Your task to perform on an android device: star an email in the gmail app Image 0: 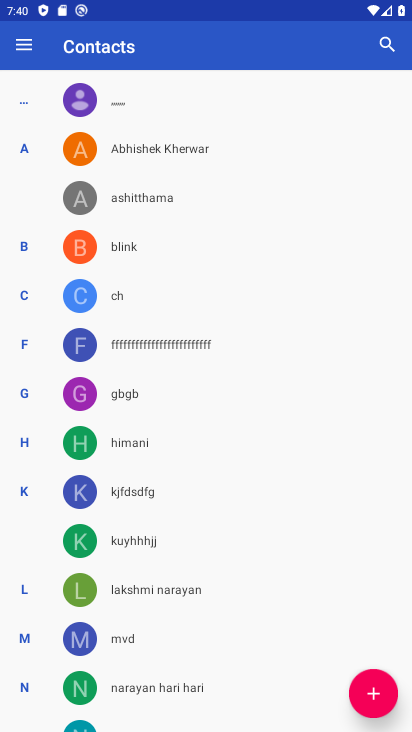
Step 0: press home button
Your task to perform on an android device: star an email in the gmail app Image 1: 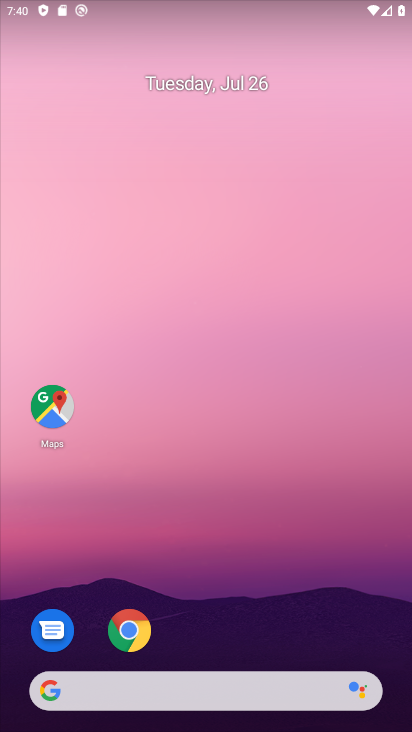
Step 1: drag from (187, 687) to (307, 17)
Your task to perform on an android device: star an email in the gmail app Image 2: 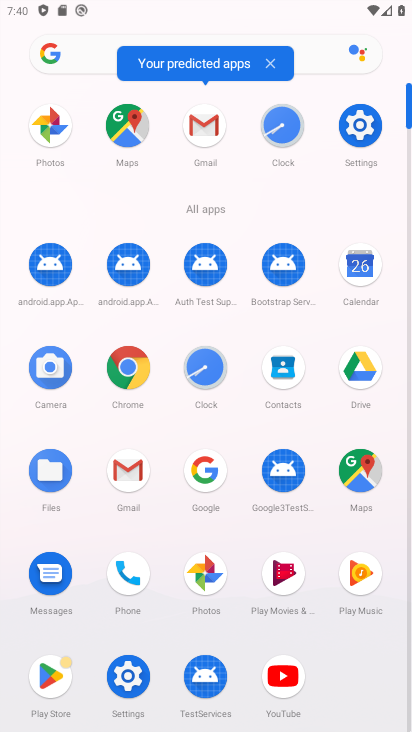
Step 2: click (204, 122)
Your task to perform on an android device: star an email in the gmail app Image 3: 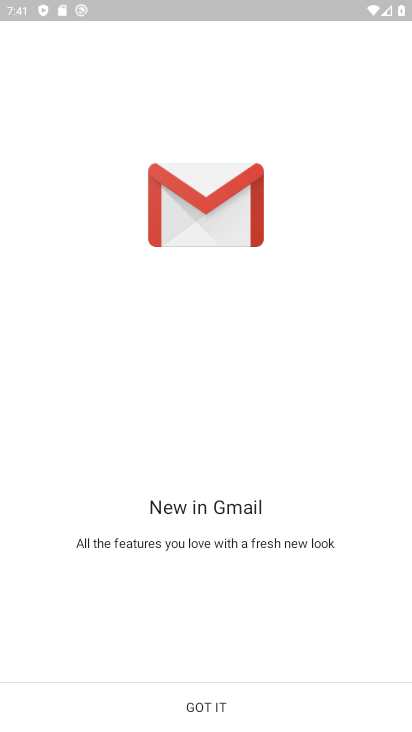
Step 3: click (209, 707)
Your task to perform on an android device: star an email in the gmail app Image 4: 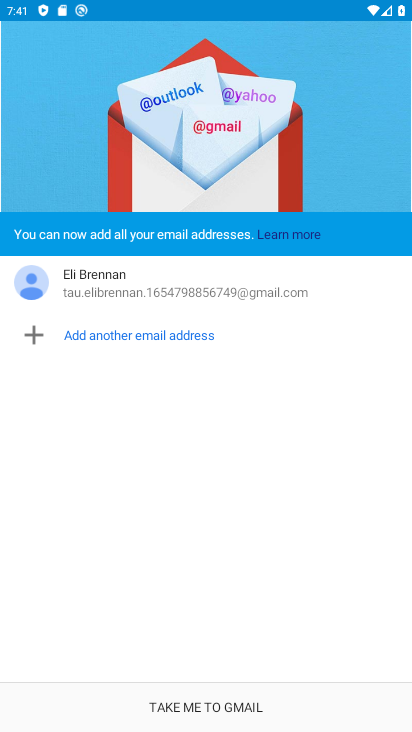
Step 4: click (209, 707)
Your task to perform on an android device: star an email in the gmail app Image 5: 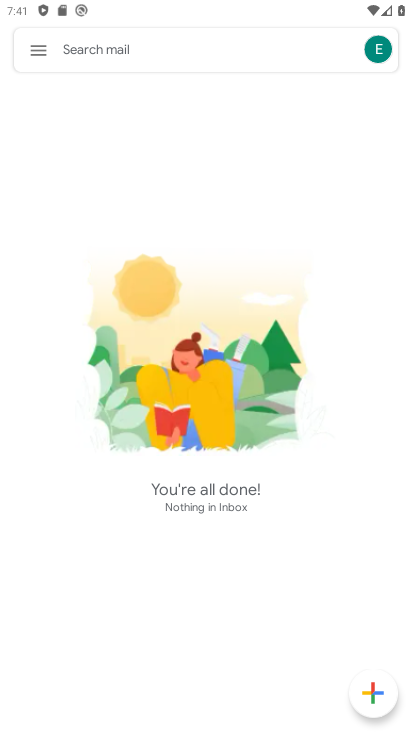
Step 5: click (42, 48)
Your task to perform on an android device: star an email in the gmail app Image 6: 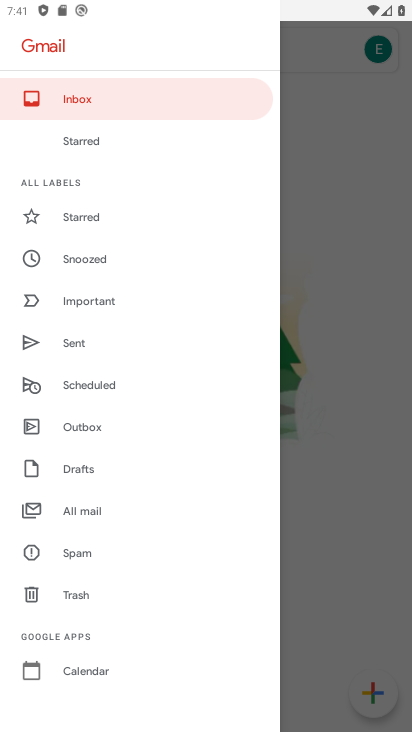
Step 6: click (75, 509)
Your task to perform on an android device: star an email in the gmail app Image 7: 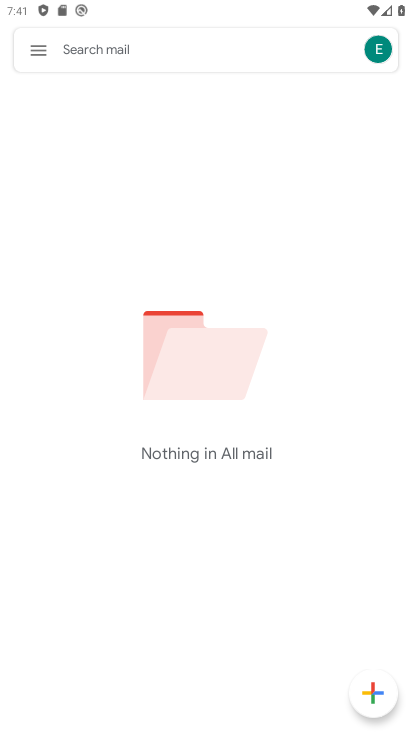
Step 7: click (40, 55)
Your task to perform on an android device: star an email in the gmail app Image 8: 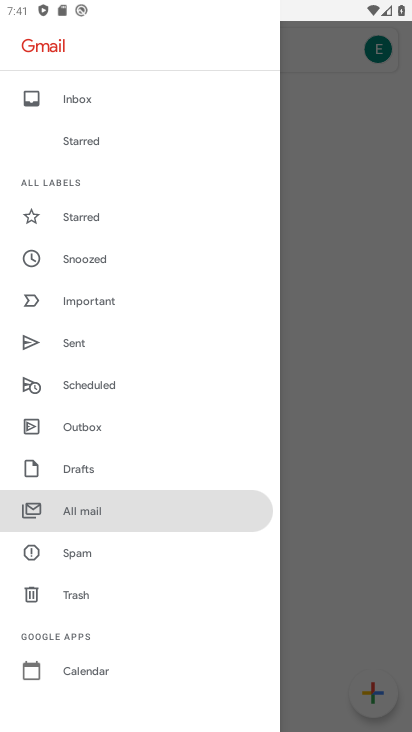
Step 8: click (76, 145)
Your task to perform on an android device: star an email in the gmail app Image 9: 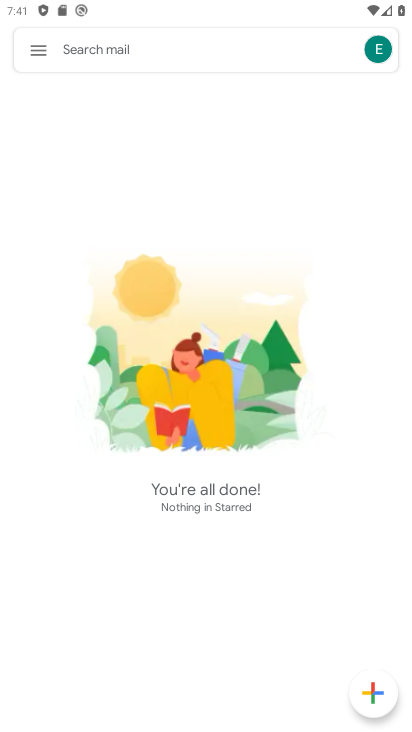
Step 9: click (37, 50)
Your task to perform on an android device: star an email in the gmail app Image 10: 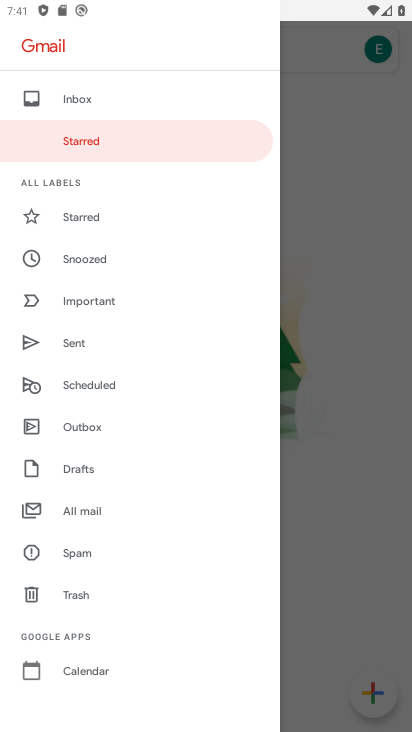
Step 10: click (75, 217)
Your task to perform on an android device: star an email in the gmail app Image 11: 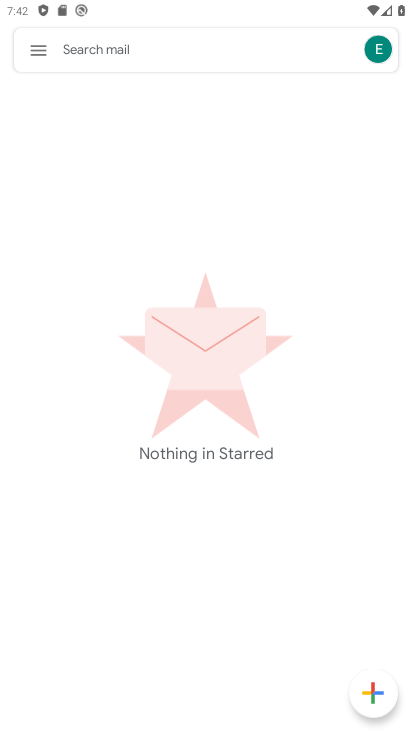
Step 11: click (43, 46)
Your task to perform on an android device: star an email in the gmail app Image 12: 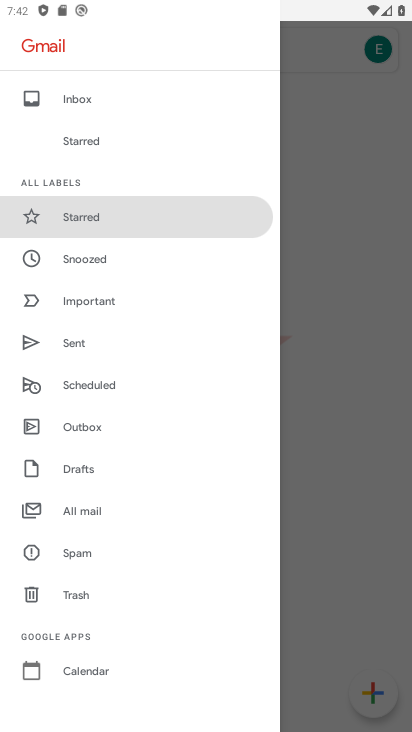
Step 12: click (69, 256)
Your task to perform on an android device: star an email in the gmail app Image 13: 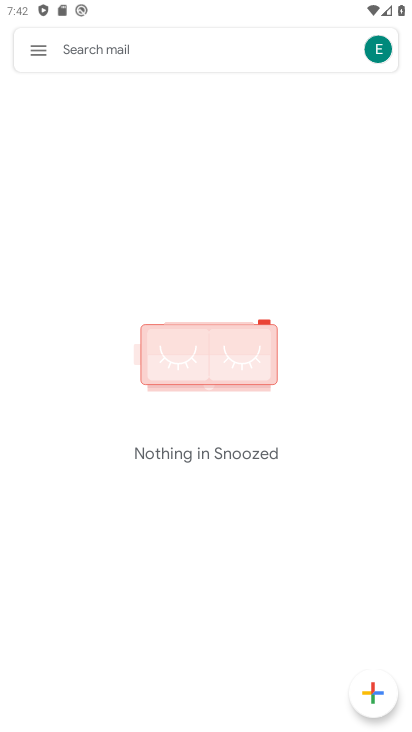
Step 13: click (42, 50)
Your task to perform on an android device: star an email in the gmail app Image 14: 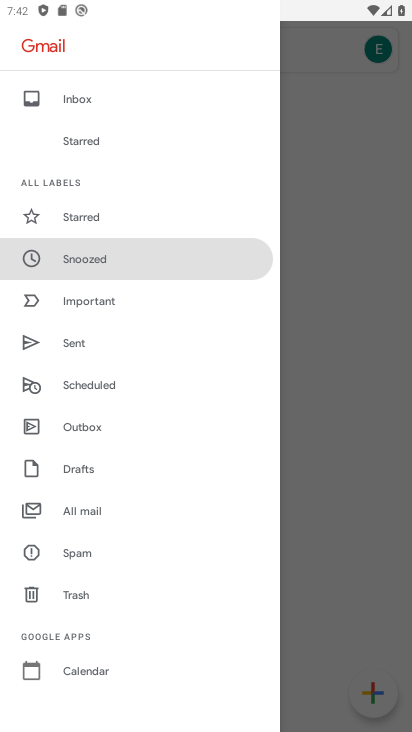
Step 14: click (107, 302)
Your task to perform on an android device: star an email in the gmail app Image 15: 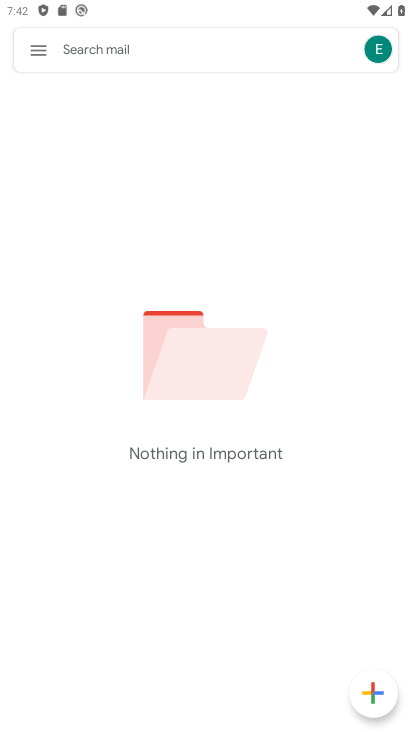
Step 15: click (37, 51)
Your task to perform on an android device: star an email in the gmail app Image 16: 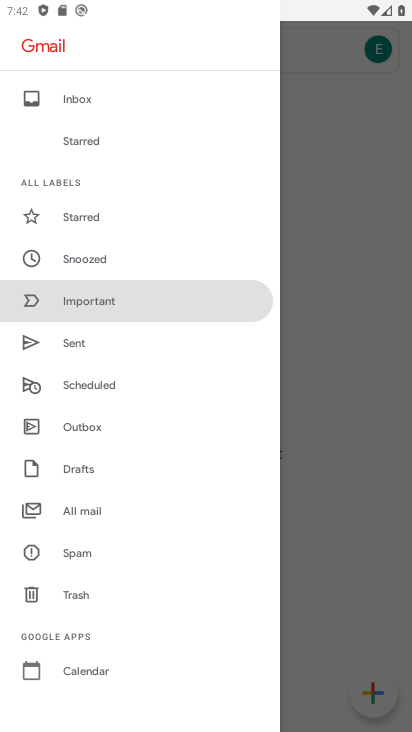
Step 16: click (83, 344)
Your task to perform on an android device: star an email in the gmail app Image 17: 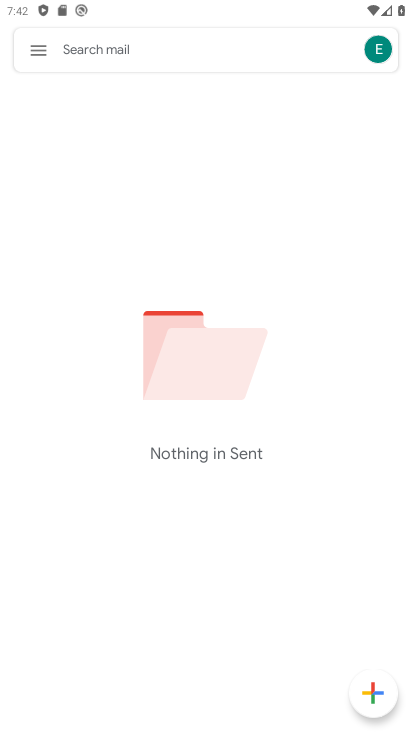
Step 17: click (43, 52)
Your task to perform on an android device: star an email in the gmail app Image 18: 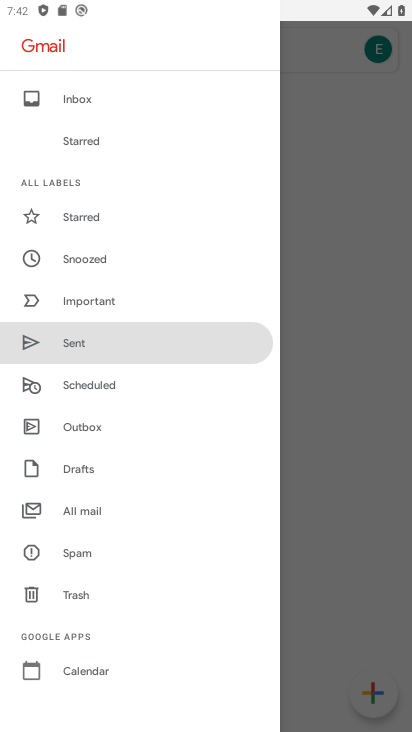
Step 18: click (87, 389)
Your task to perform on an android device: star an email in the gmail app Image 19: 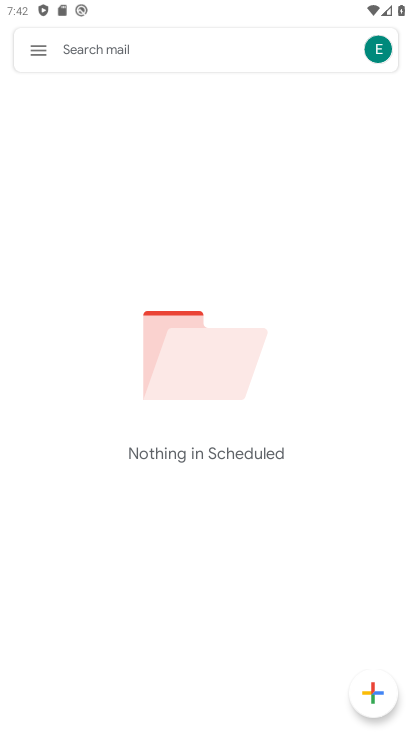
Step 19: click (33, 50)
Your task to perform on an android device: star an email in the gmail app Image 20: 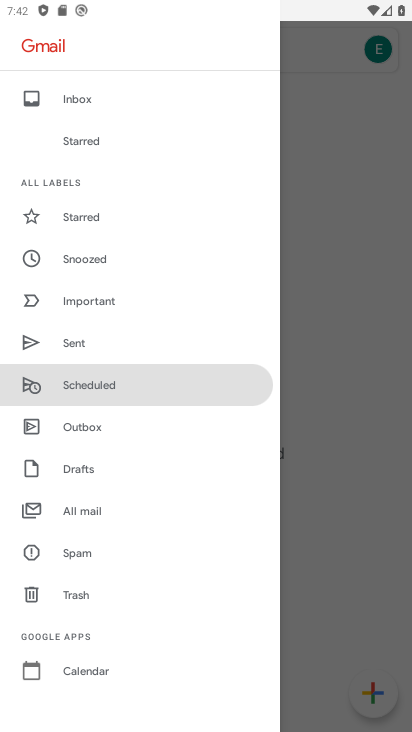
Step 20: click (84, 426)
Your task to perform on an android device: star an email in the gmail app Image 21: 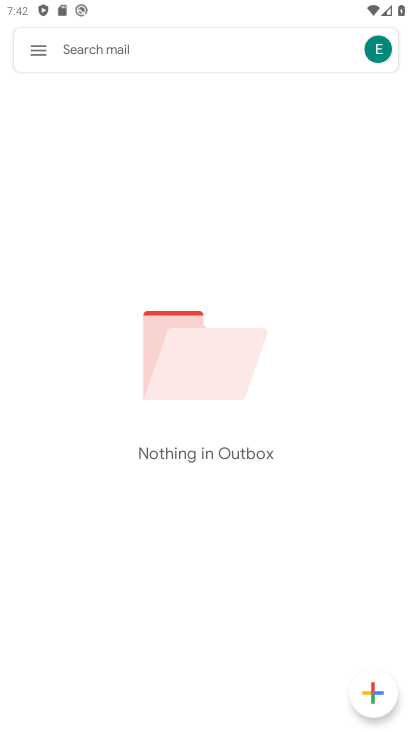
Step 21: click (37, 52)
Your task to perform on an android device: star an email in the gmail app Image 22: 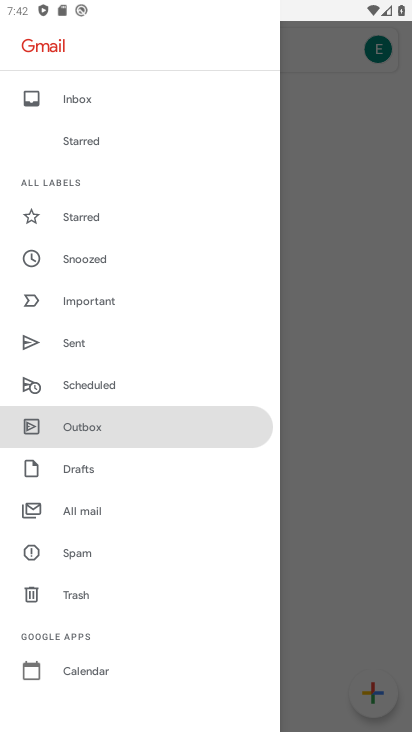
Step 22: click (82, 471)
Your task to perform on an android device: star an email in the gmail app Image 23: 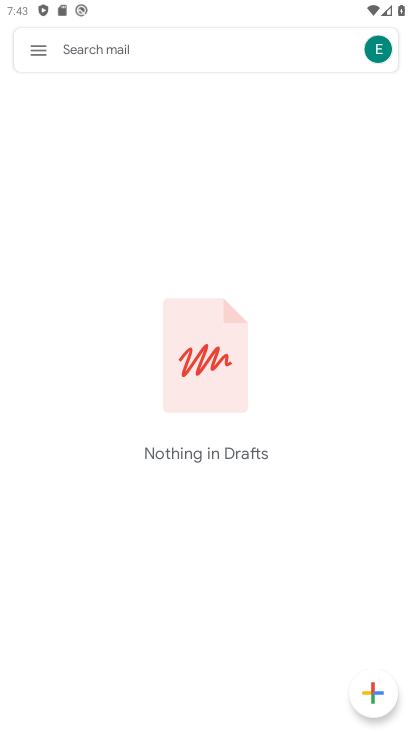
Step 23: task complete